Your task to perform on an android device: open chrome privacy settings Image 0: 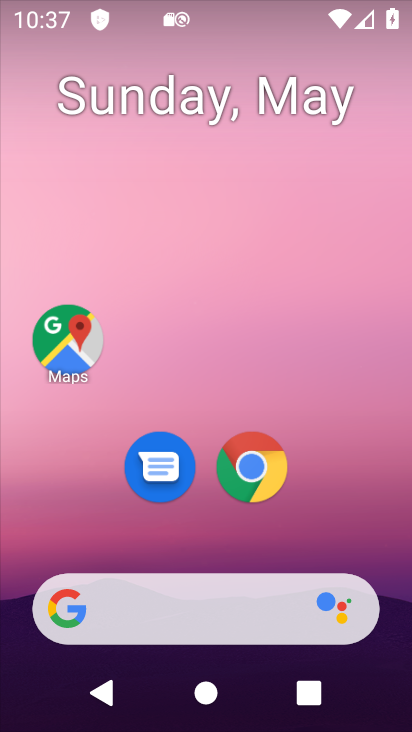
Step 0: click (255, 471)
Your task to perform on an android device: open chrome privacy settings Image 1: 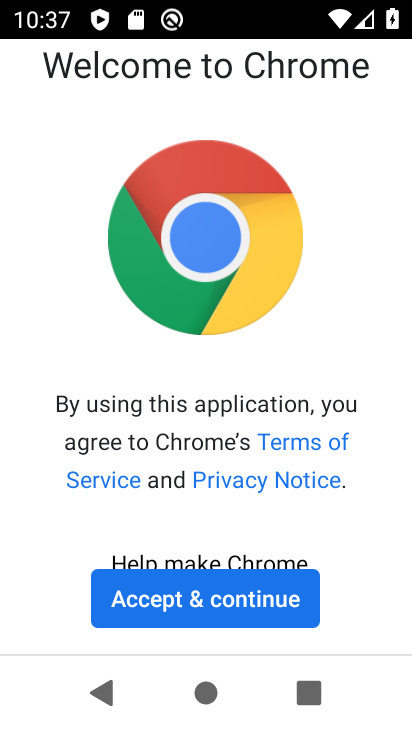
Step 1: click (222, 599)
Your task to perform on an android device: open chrome privacy settings Image 2: 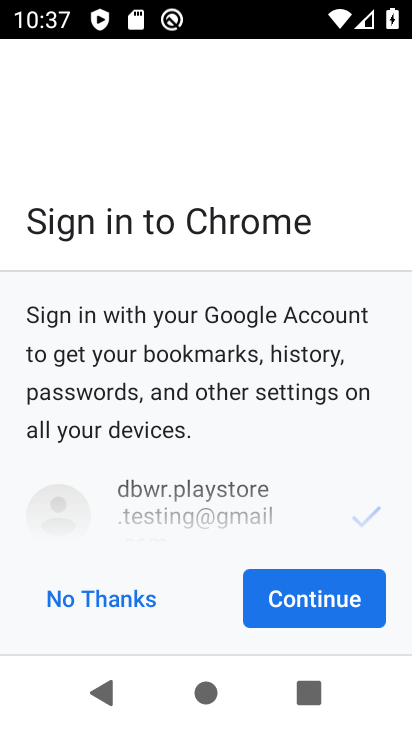
Step 2: click (104, 604)
Your task to perform on an android device: open chrome privacy settings Image 3: 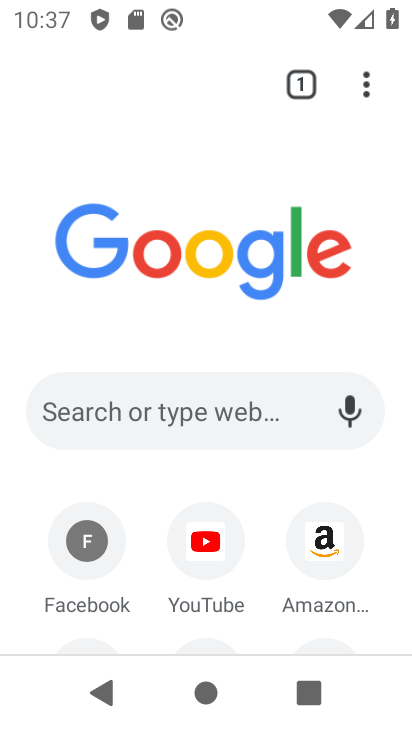
Step 3: click (367, 91)
Your task to perform on an android device: open chrome privacy settings Image 4: 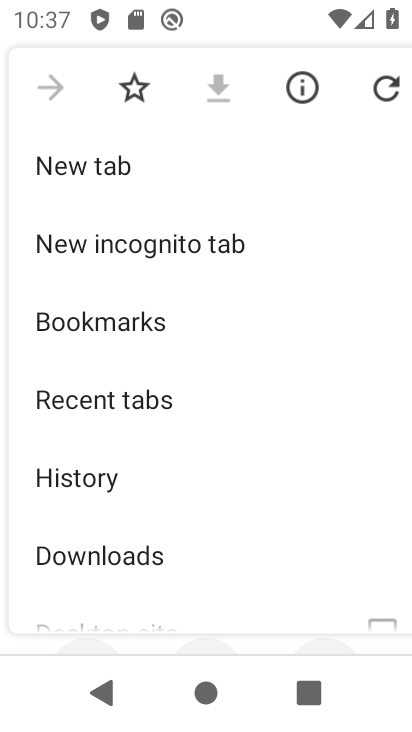
Step 4: drag from (207, 475) to (195, 196)
Your task to perform on an android device: open chrome privacy settings Image 5: 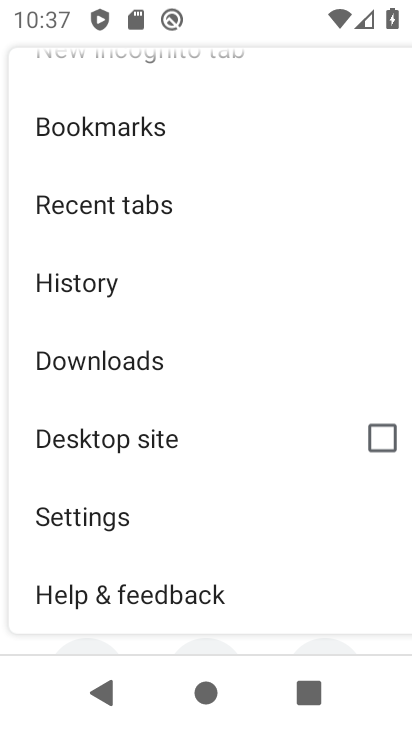
Step 5: click (95, 520)
Your task to perform on an android device: open chrome privacy settings Image 6: 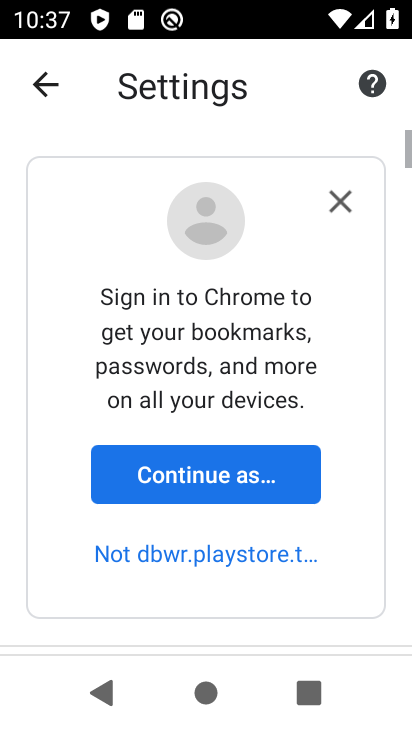
Step 6: drag from (173, 569) to (186, 184)
Your task to perform on an android device: open chrome privacy settings Image 7: 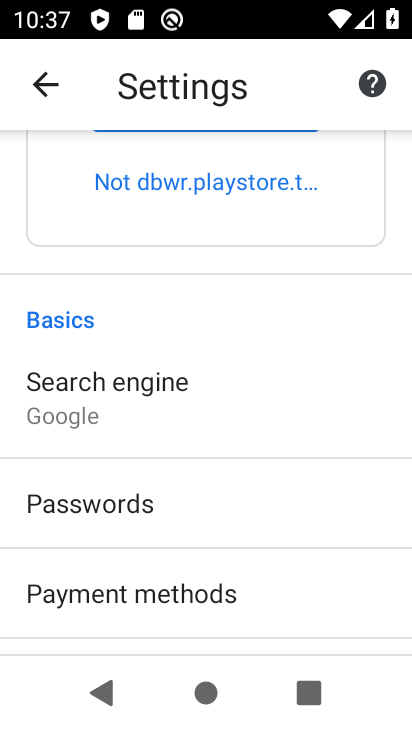
Step 7: drag from (122, 538) to (114, 201)
Your task to perform on an android device: open chrome privacy settings Image 8: 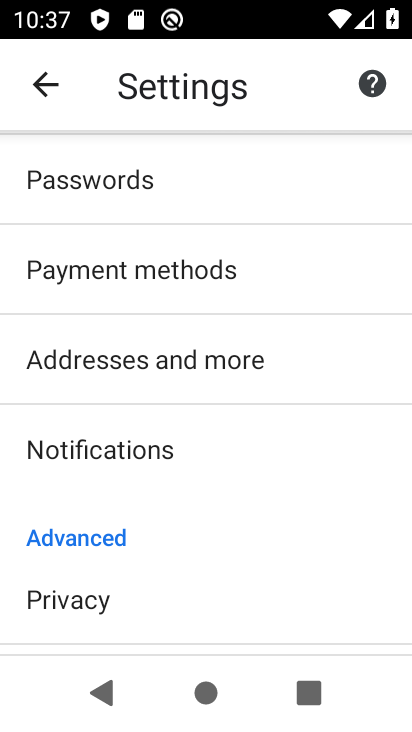
Step 8: drag from (100, 511) to (114, 260)
Your task to perform on an android device: open chrome privacy settings Image 9: 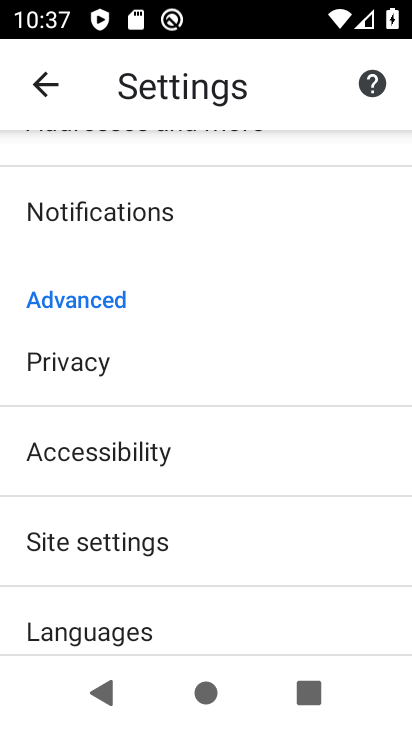
Step 9: click (75, 359)
Your task to perform on an android device: open chrome privacy settings Image 10: 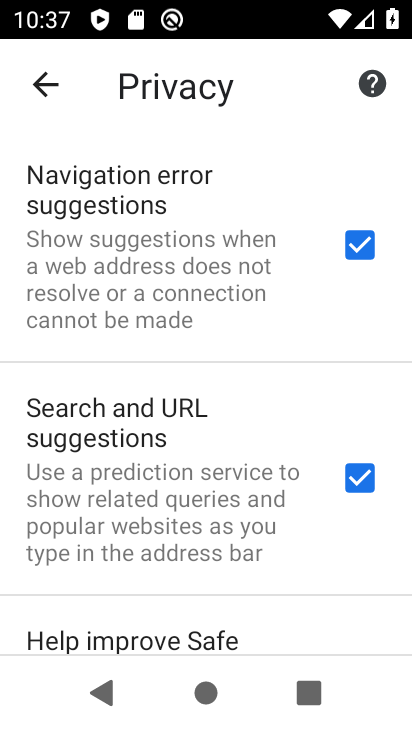
Step 10: task complete